Your task to perform on an android device: Go to Google maps Image 0: 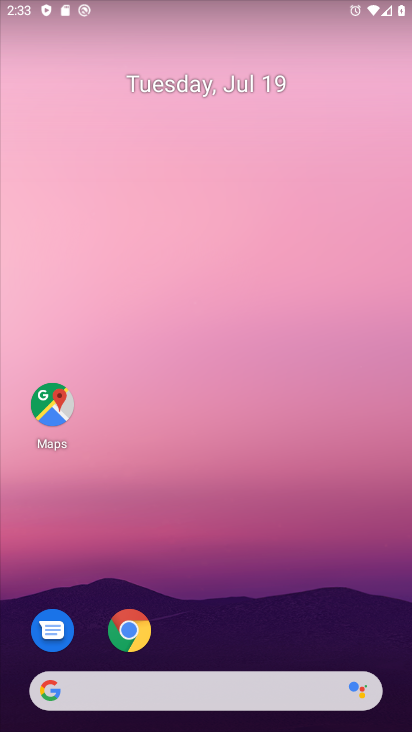
Step 0: click (333, 0)
Your task to perform on an android device: Go to Google maps Image 1: 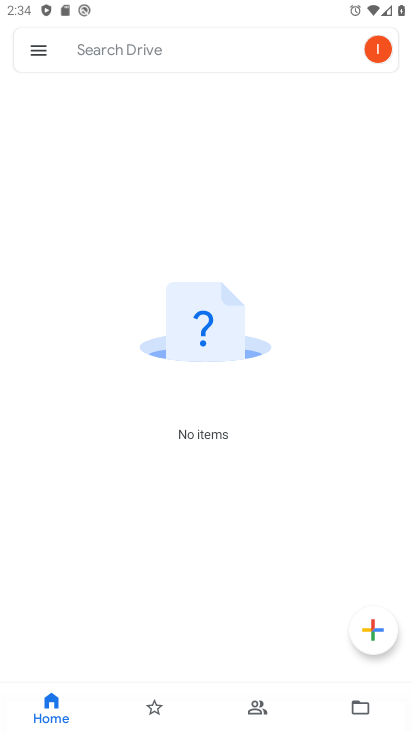
Step 1: press home button
Your task to perform on an android device: Go to Google maps Image 2: 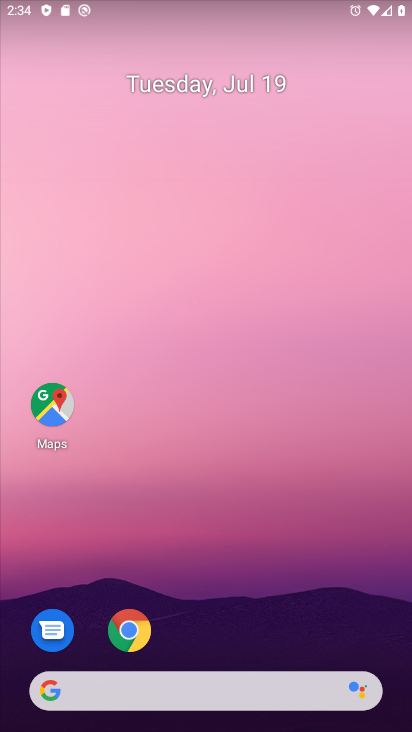
Step 2: click (47, 416)
Your task to perform on an android device: Go to Google maps Image 3: 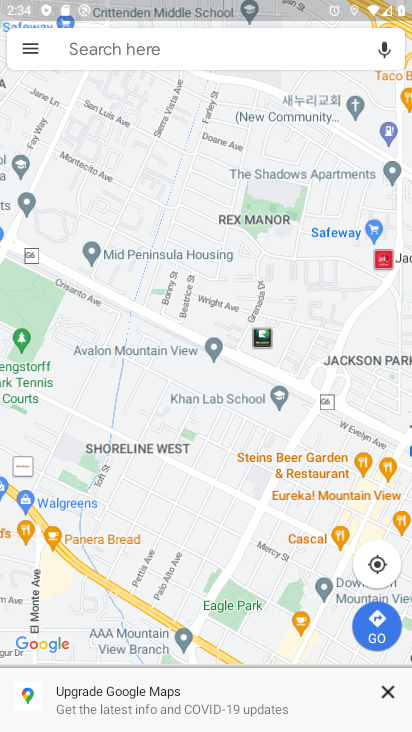
Step 3: task complete